Your task to perform on an android device: change timer sound Image 0: 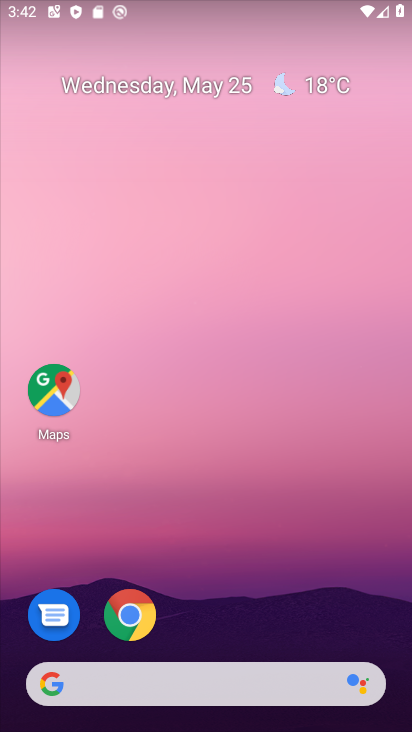
Step 0: drag from (350, 634) to (327, 10)
Your task to perform on an android device: change timer sound Image 1: 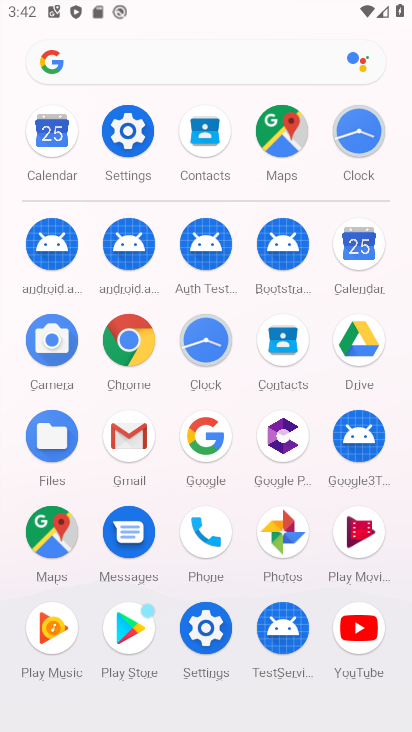
Step 1: click (207, 633)
Your task to perform on an android device: change timer sound Image 2: 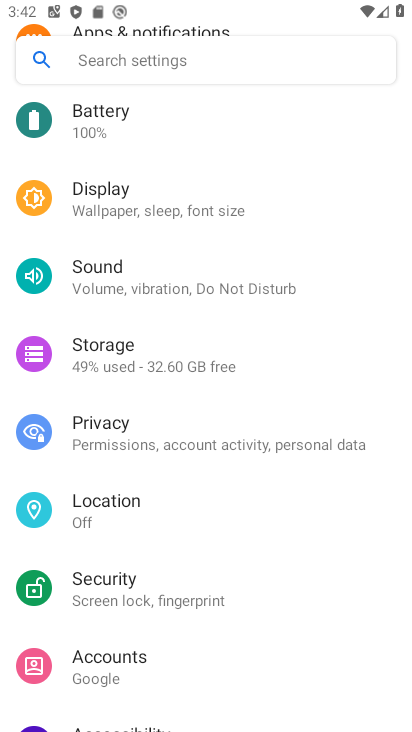
Step 2: drag from (177, 625) to (153, 277)
Your task to perform on an android device: change timer sound Image 3: 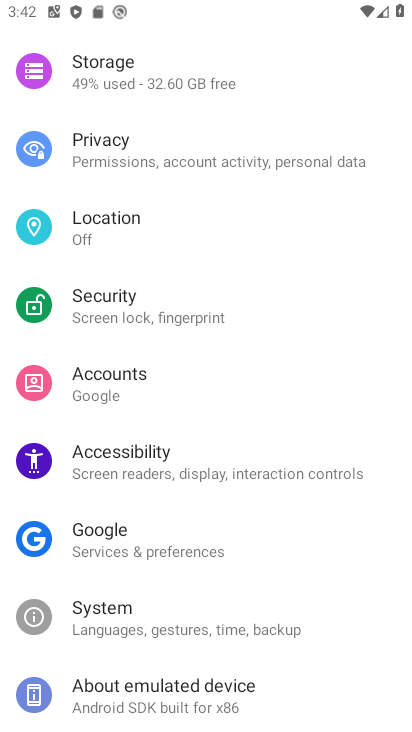
Step 3: drag from (145, 367) to (136, 645)
Your task to perform on an android device: change timer sound Image 4: 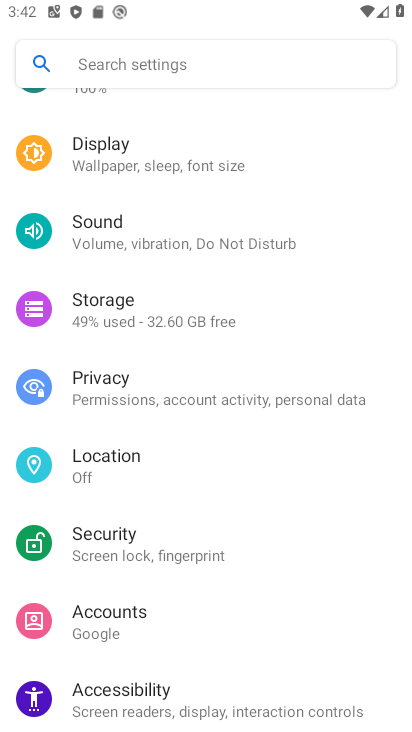
Step 4: click (145, 211)
Your task to perform on an android device: change timer sound Image 5: 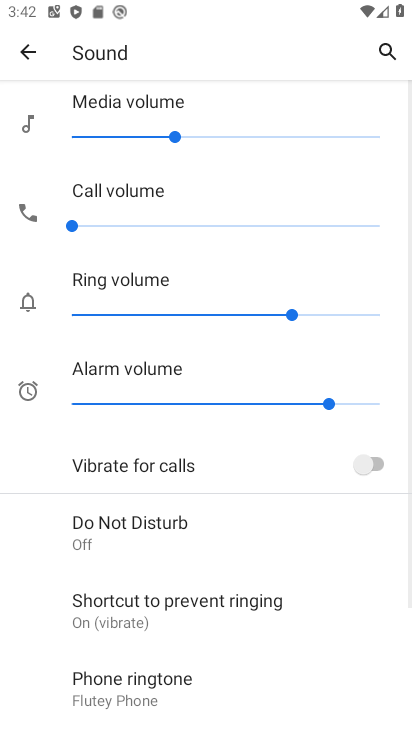
Step 5: press home button
Your task to perform on an android device: change timer sound Image 6: 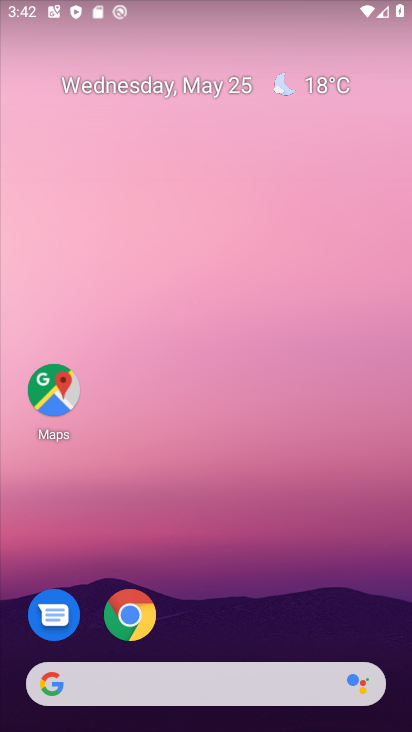
Step 6: drag from (379, 598) to (310, 2)
Your task to perform on an android device: change timer sound Image 7: 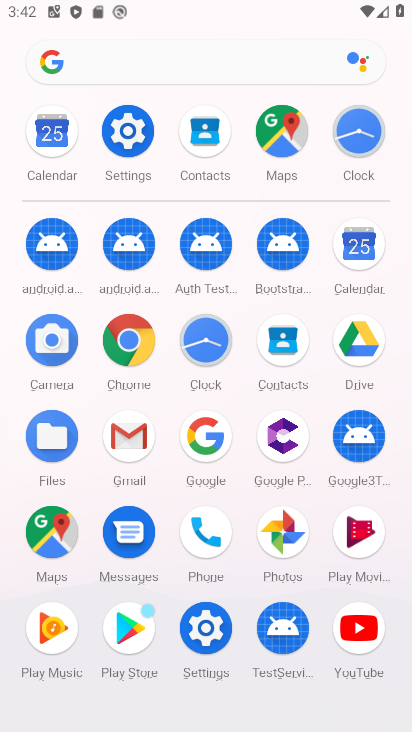
Step 7: click (188, 346)
Your task to perform on an android device: change timer sound Image 8: 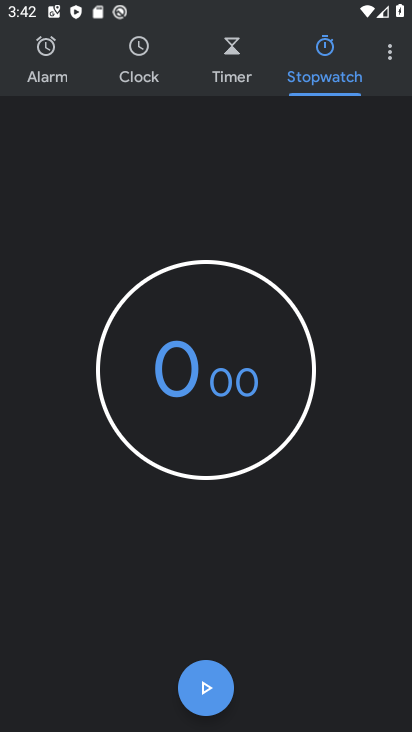
Step 8: click (380, 50)
Your task to perform on an android device: change timer sound Image 9: 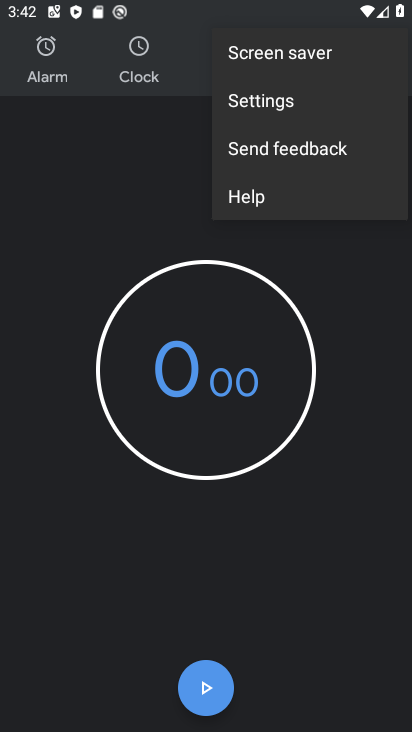
Step 9: click (257, 113)
Your task to perform on an android device: change timer sound Image 10: 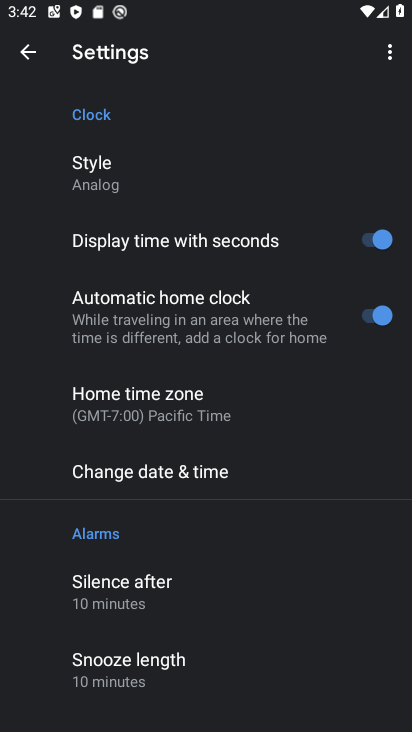
Step 10: drag from (236, 674) to (220, 122)
Your task to perform on an android device: change timer sound Image 11: 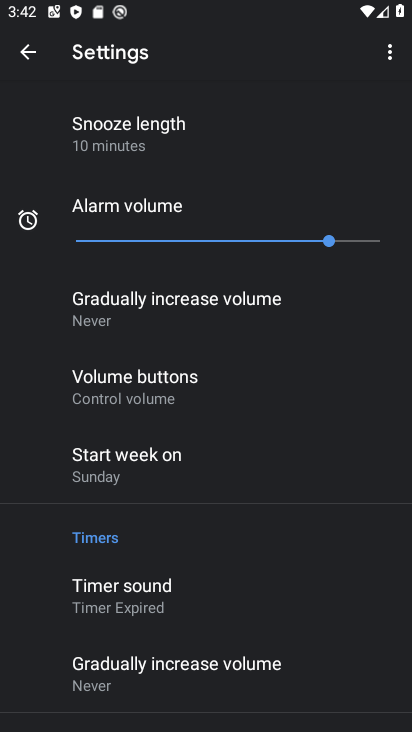
Step 11: click (203, 599)
Your task to perform on an android device: change timer sound Image 12: 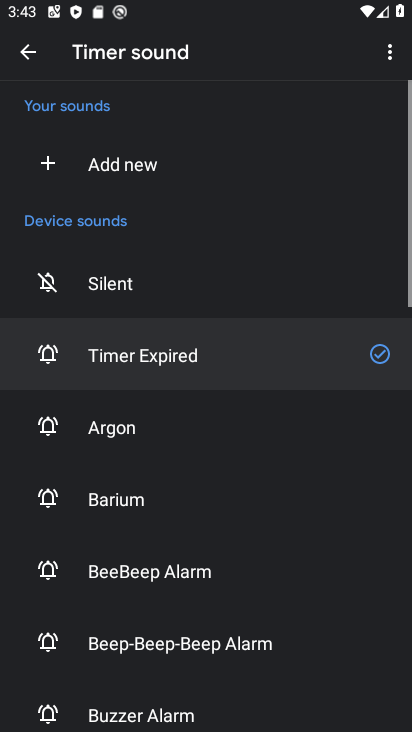
Step 12: click (203, 588)
Your task to perform on an android device: change timer sound Image 13: 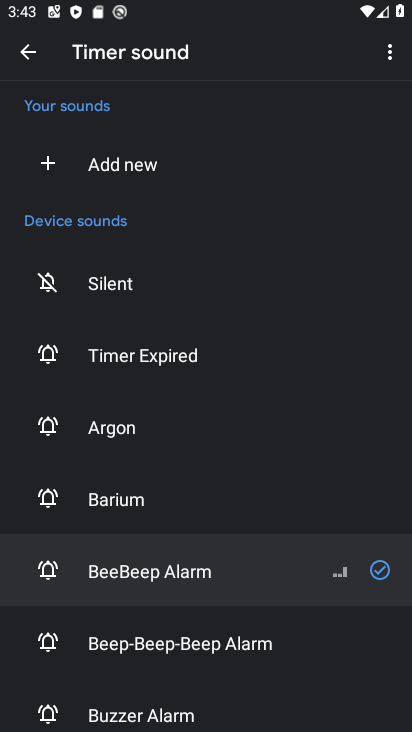
Step 13: task complete